Your task to perform on an android device: turn off location Image 0: 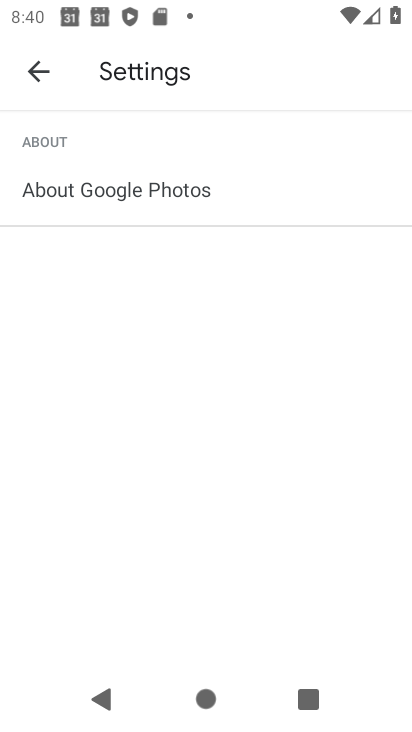
Step 0: press back button
Your task to perform on an android device: turn off location Image 1: 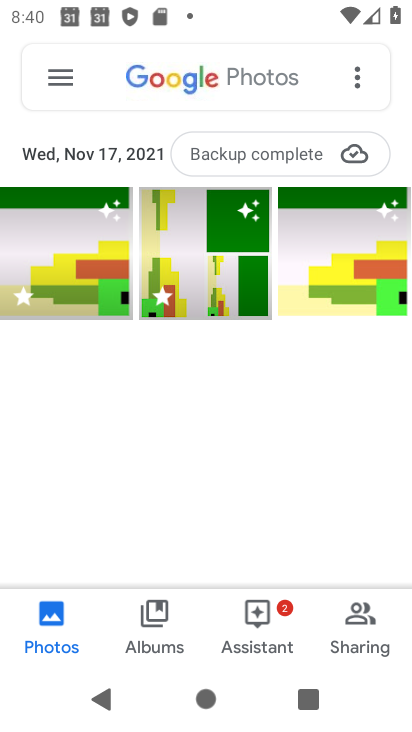
Step 1: press back button
Your task to perform on an android device: turn off location Image 2: 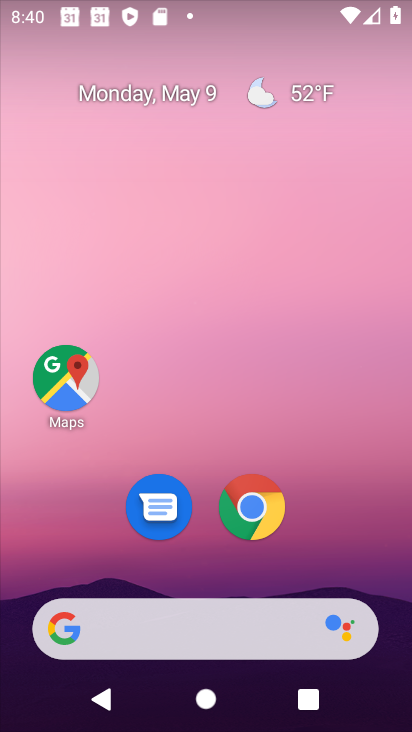
Step 2: drag from (320, 556) to (248, 147)
Your task to perform on an android device: turn off location Image 3: 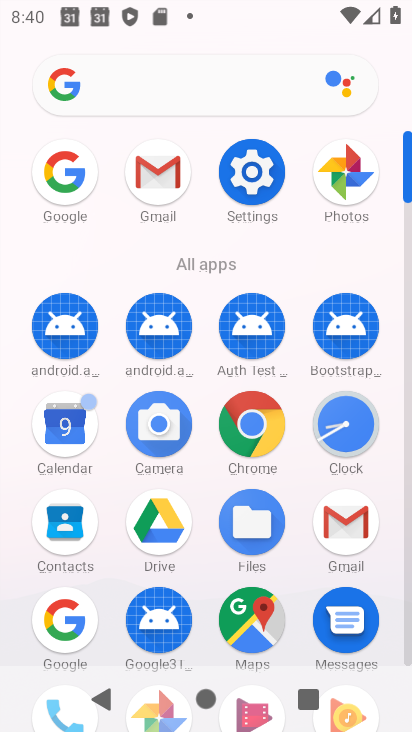
Step 3: click (255, 168)
Your task to perform on an android device: turn off location Image 4: 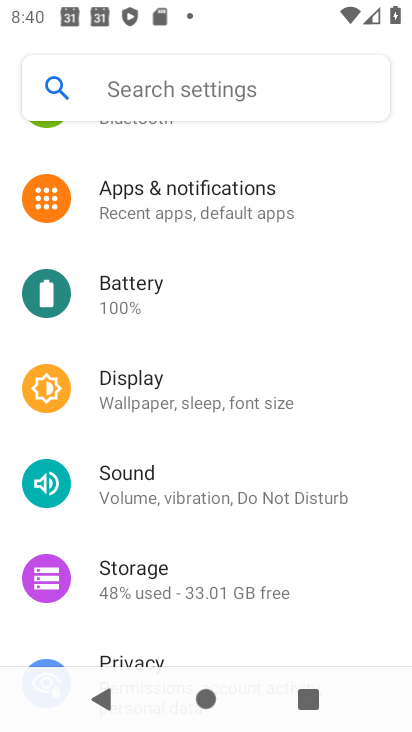
Step 4: drag from (217, 350) to (236, 260)
Your task to perform on an android device: turn off location Image 5: 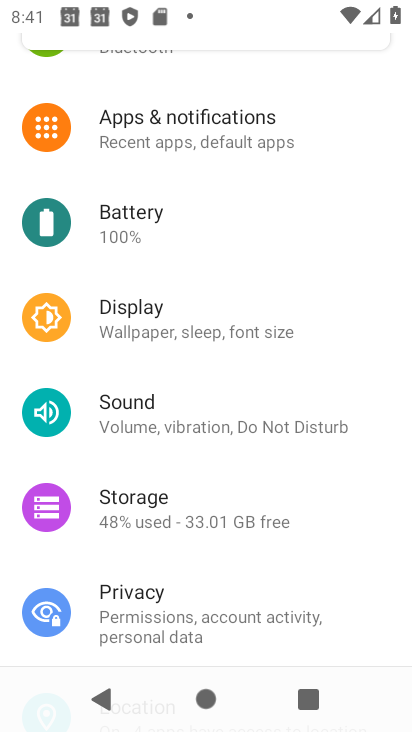
Step 5: drag from (204, 445) to (250, 343)
Your task to perform on an android device: turn off location Image 6: 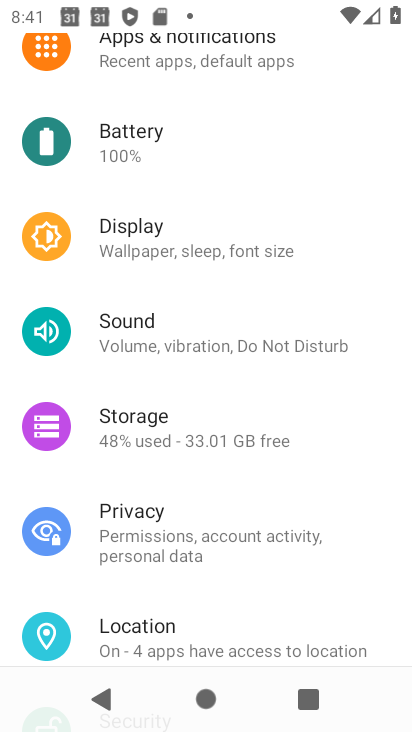
Step 6: drag from (177, 475) to (267, 339)
Your task to perform on an android device: turn off location Image 7: 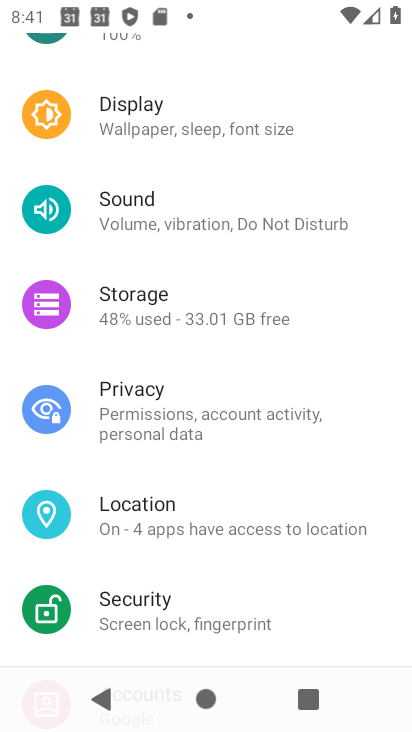
Step 7: click (147, 502)
Your task to perform on an android device: turn off location Image 8: 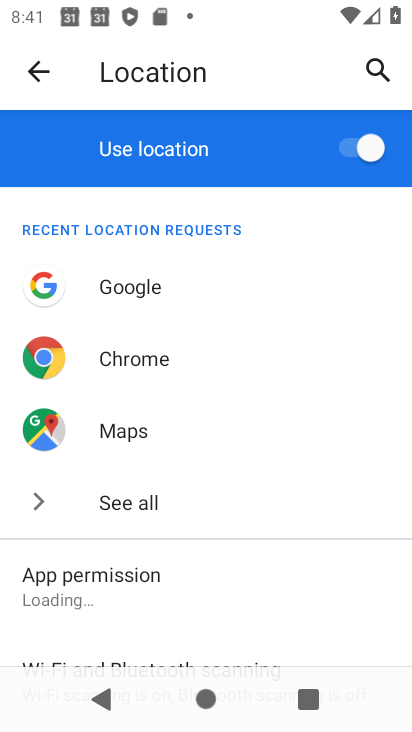
Step 8: click (362, 151)
Your task to perform on an android device: turn off location Image 9: 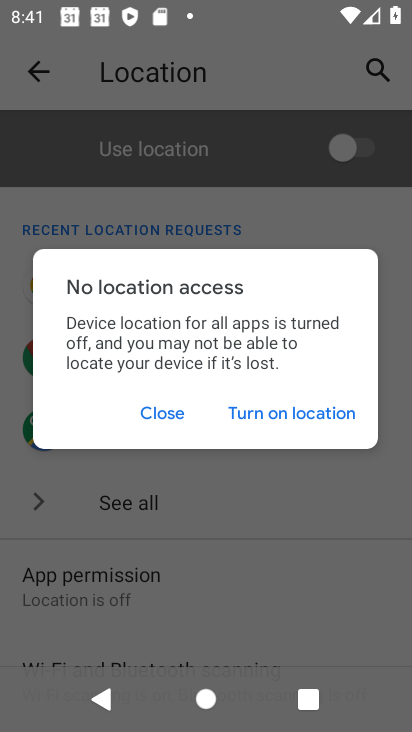
Step 9: click (146, 414)
Your task to perform on an android device: turn off location Image 10: 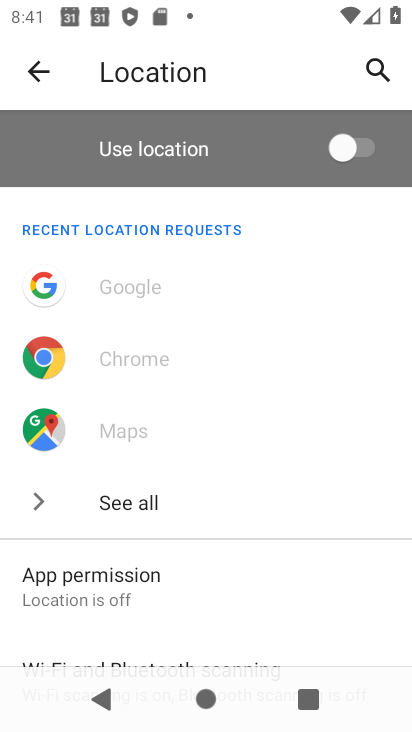
Step 10: task complete